Your task to perform on an android device: uninstall "Adobe Express: Graphic Design" Image 0: 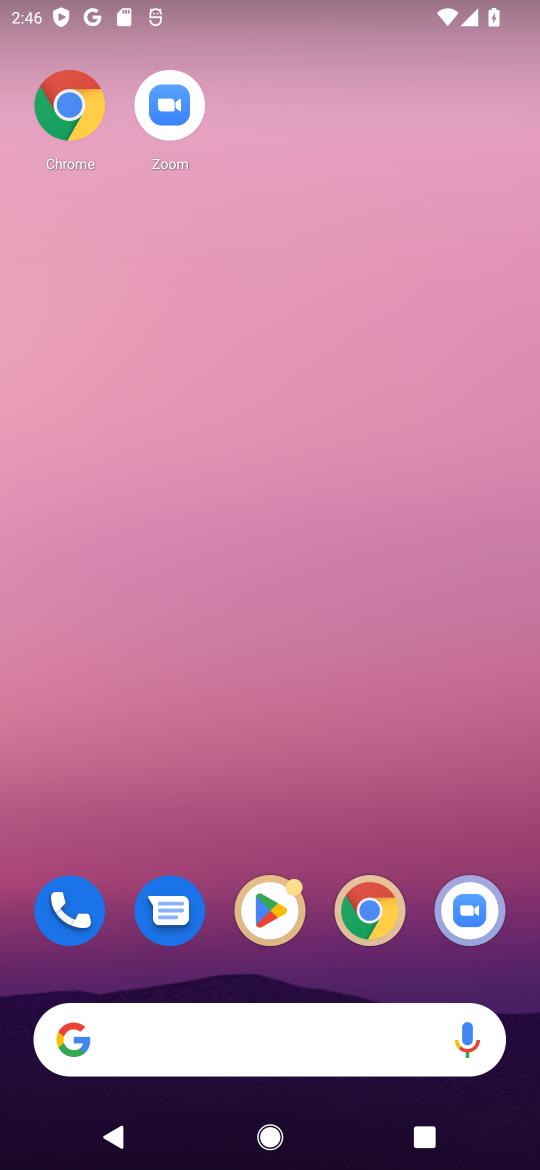
Step 0: drag from (289, 1089) to (488, 16)
Your task to perform on an android device: uninstall "Adobe Express: Graphic Design" Image 1: 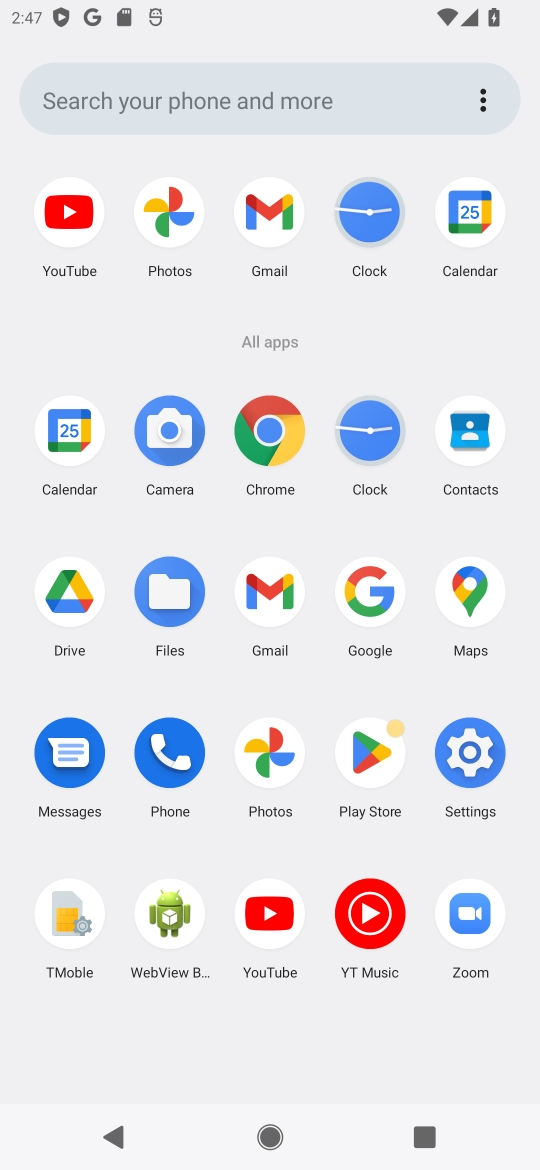
Step 1: click (373, 769)
Your task to perform on an android device: uninstall "Adobe Express: Graphic Design" Image 2: 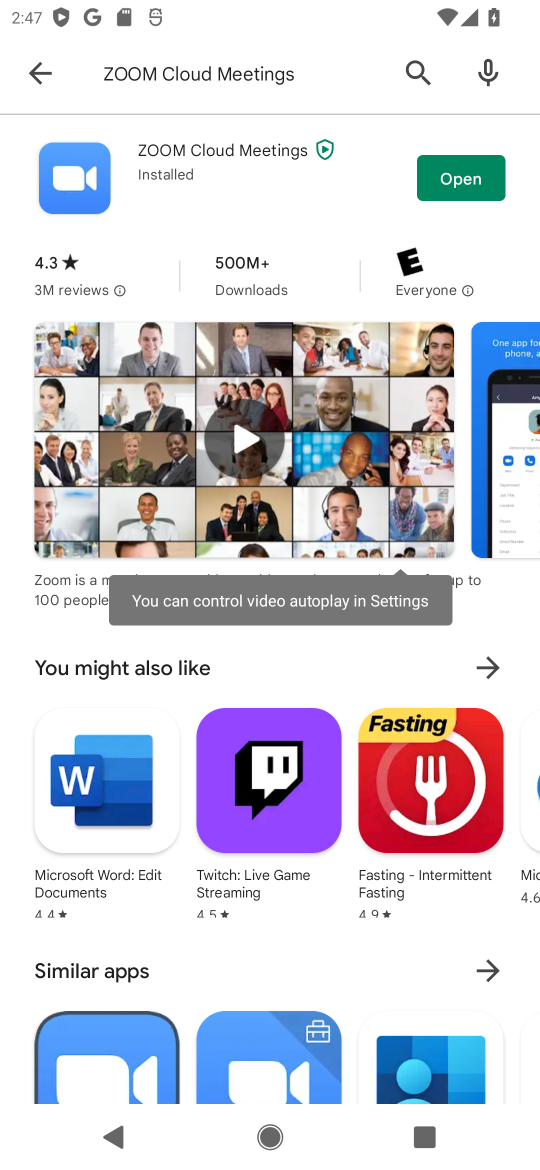
Step 2: press back button
Your task to perform on an android device: uninstall "Adobe Express: Graphic Design" Image 3: 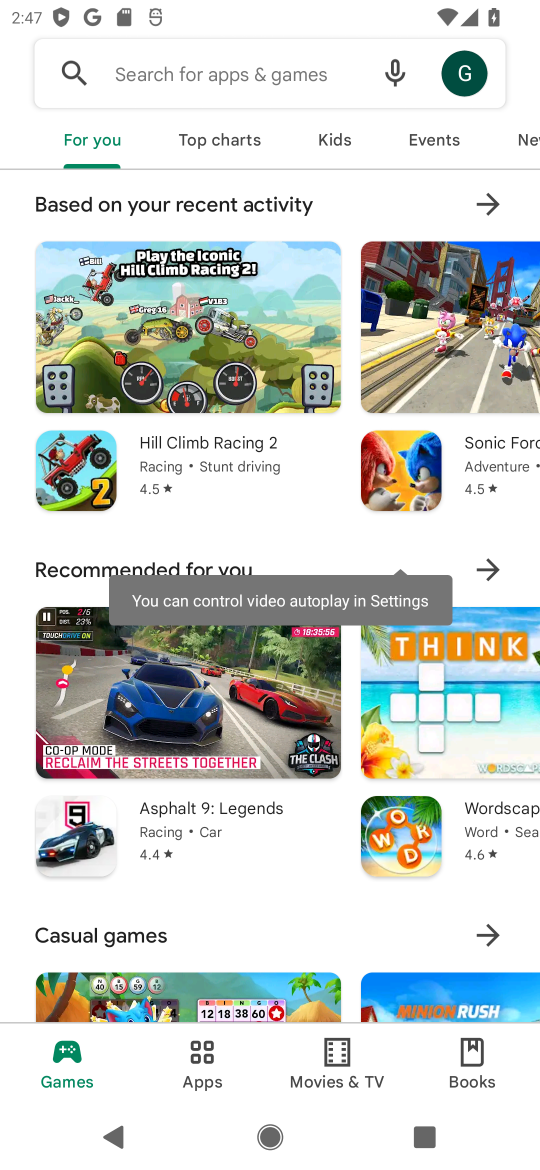
Step 3: click (292, 96)
Your task to perform on an android device: uninstall "Adobe Express: Graphic Design" Image 4: 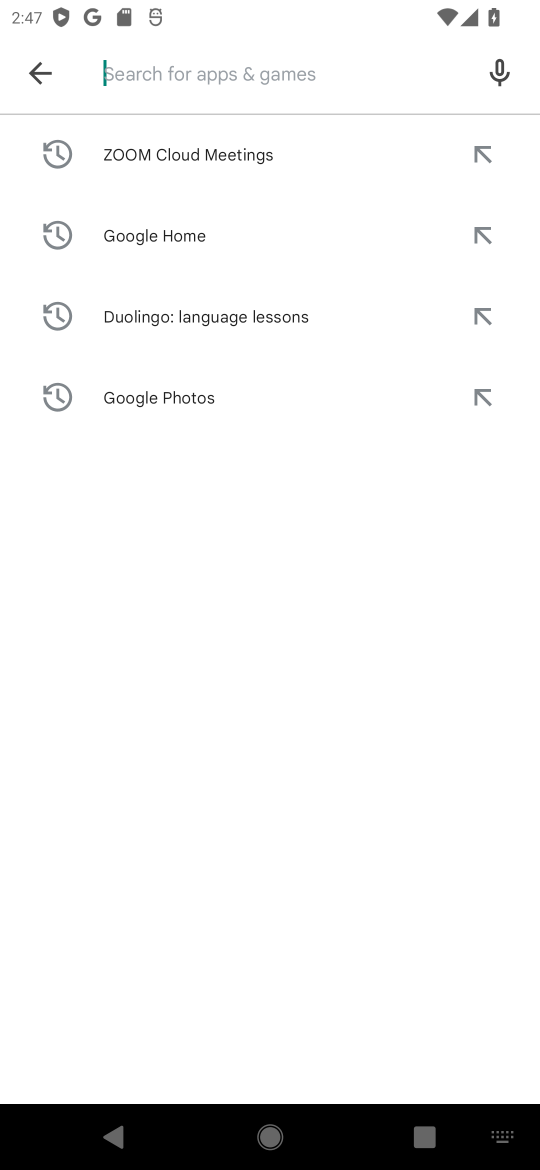
Step 4: type "ZOOM Cloud Meetings"
Your task to perform on an android device: uninstall "Adobe Express: Graphic Design" Image 5: 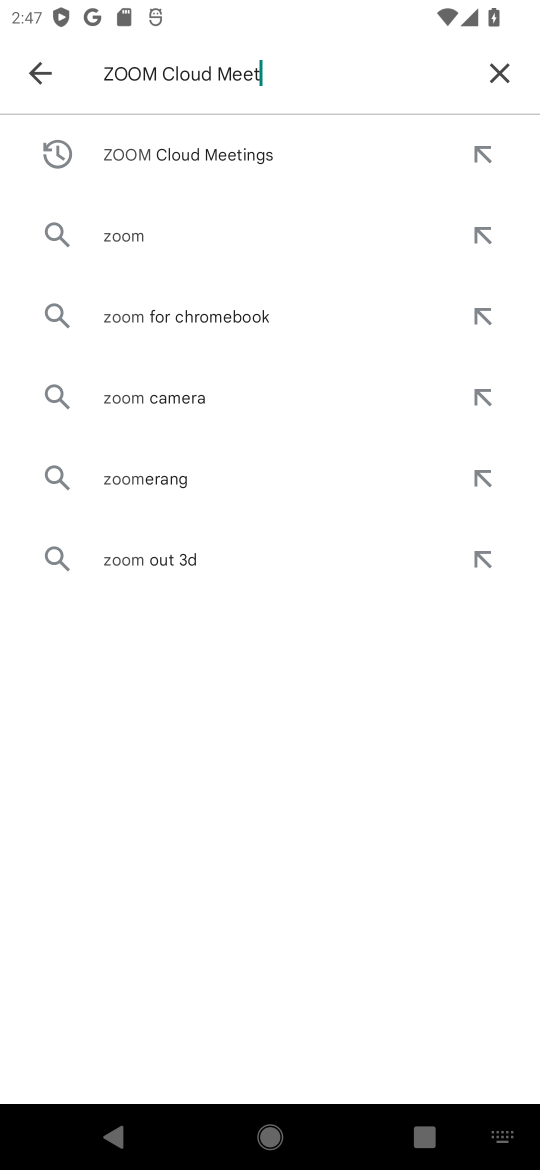
Step 5: press enter
Your task to perform on an android device: uninstall "Adobe Express: Graphic Design" Image 6: 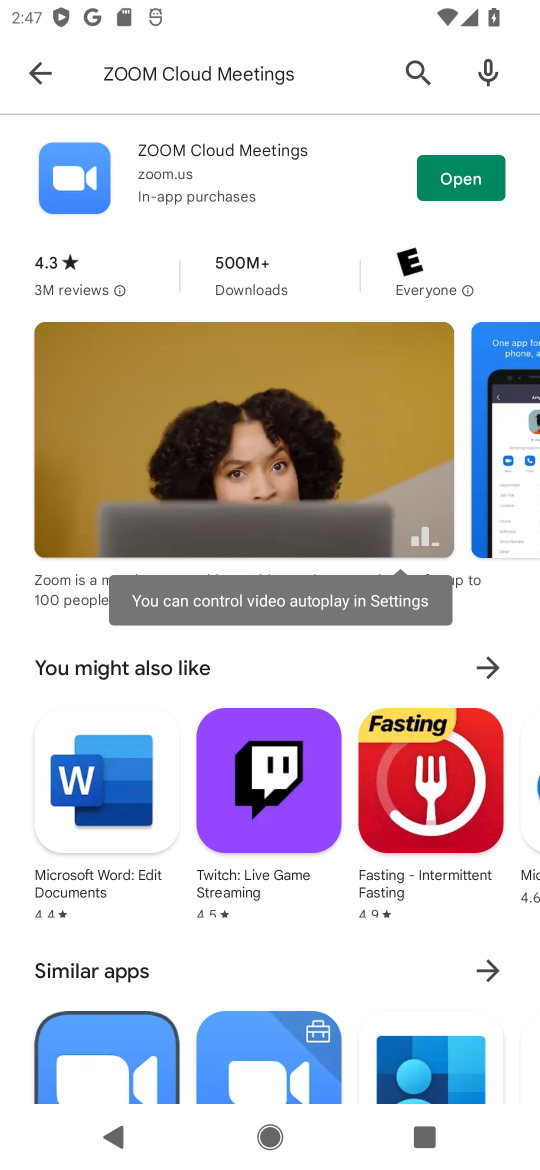
Step 6: press back button
Your task to perform on an android device: uninstall "Adobe Express: Graphic Design" Image 7: 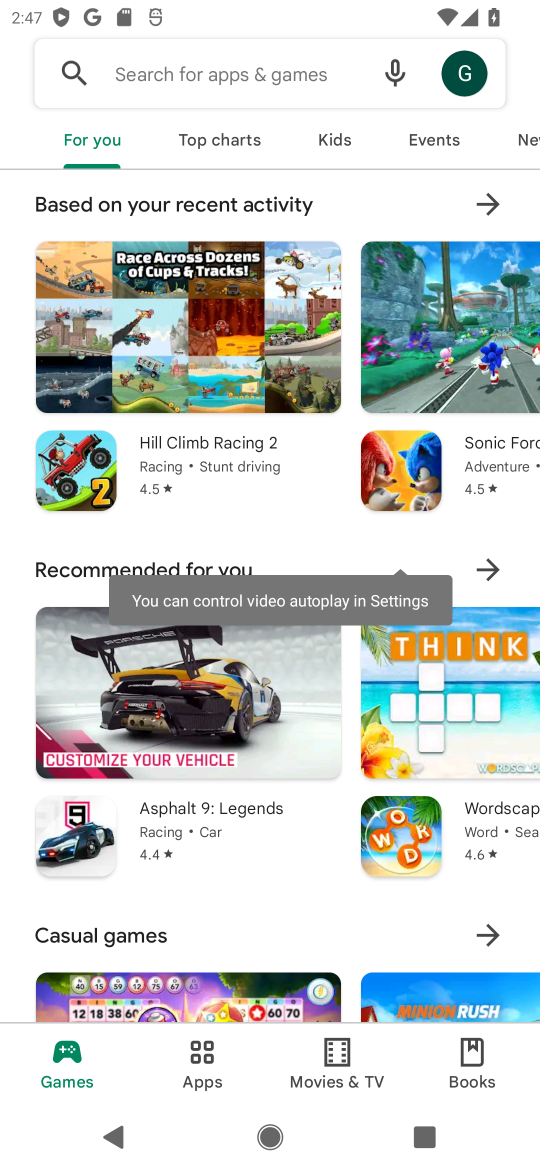
Step 7: click (208, 93)
Your task to perform on an android device: uninstall "Adobe Express: Graphic Design" Image 8: 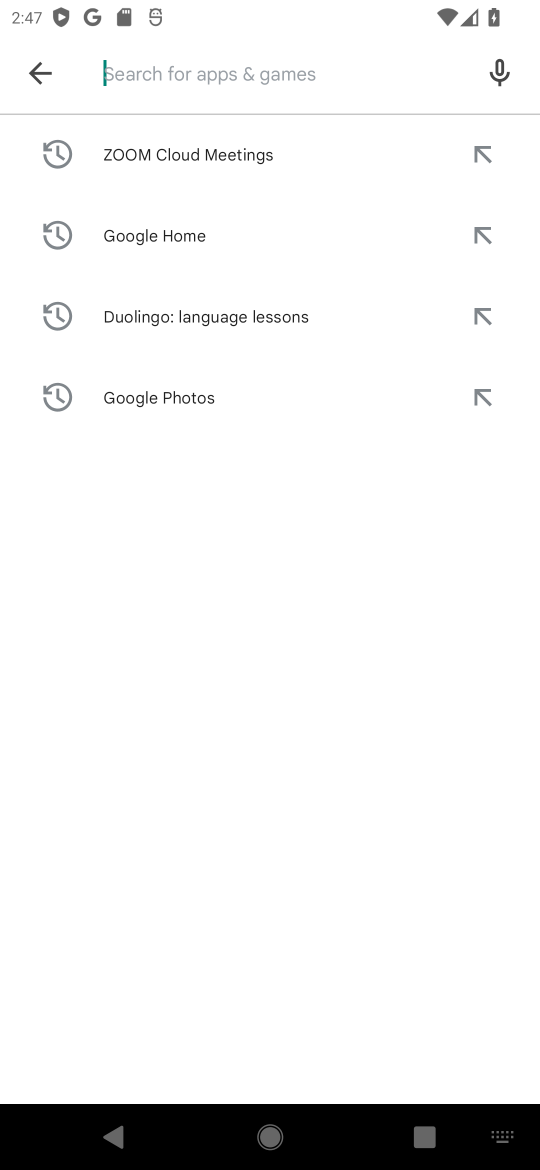
Step 8: type "Adobe Express: Graphic Design"
Your task to perform on an android device: uninstall "Adobe Express: Graphic Design" Image 9: 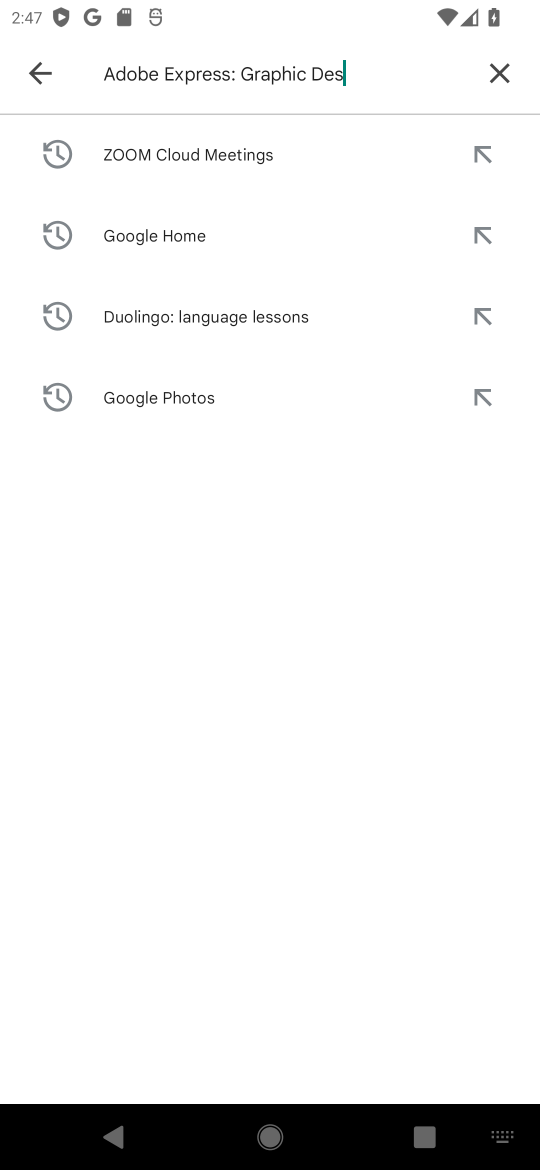
Step 9: press enter
Your task to perform on an android device: uninstall "Adobe Express: Graphic Design" Image 10: 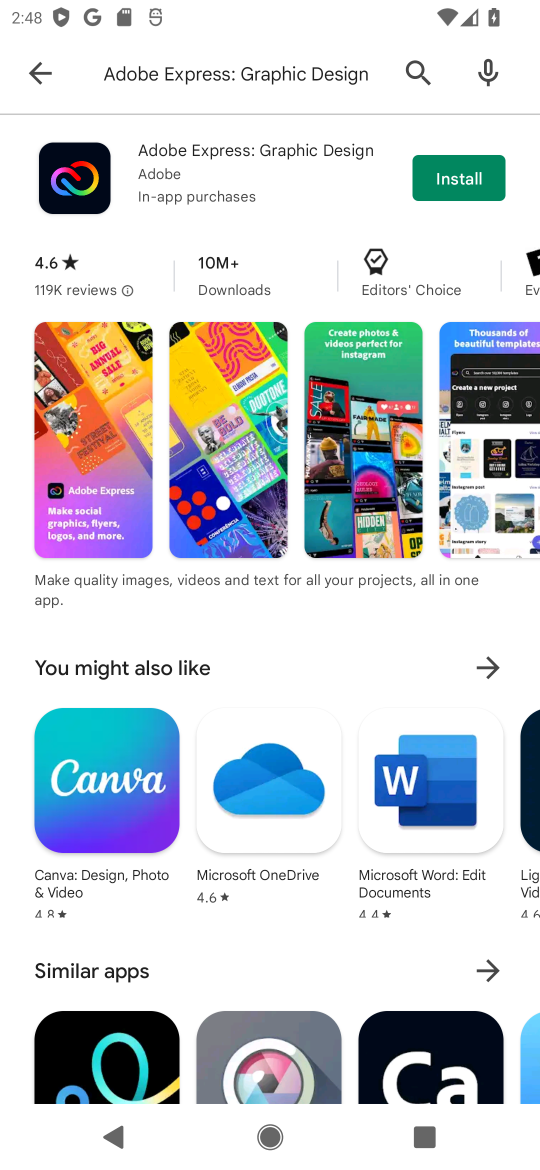
Step 10: task complete